Your task to perform on an android device: Go to network settings Image 0: 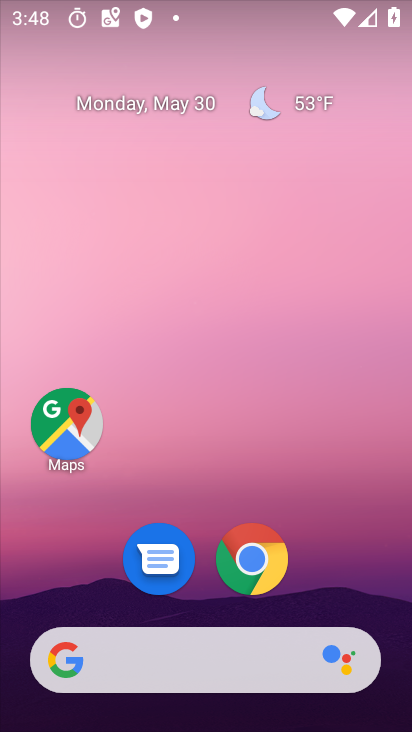
Step 0: drag from (229, 726) to (224, 2)
Your task to perform on an android device: Go to network settings Image 1: 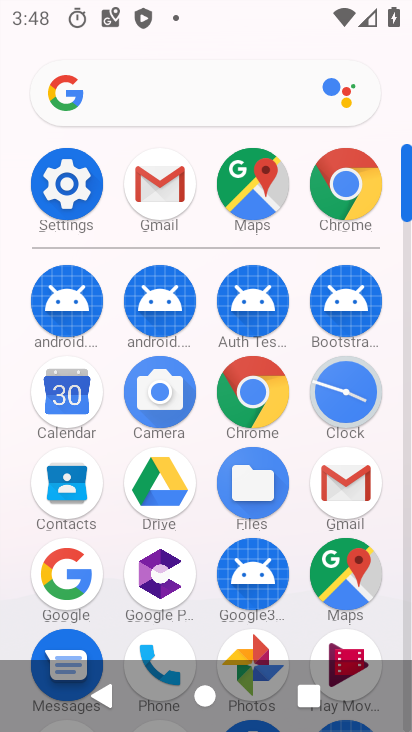
Step 1: click (70, 180)
Your task to perform on an android device: Go to network settings Image 2: 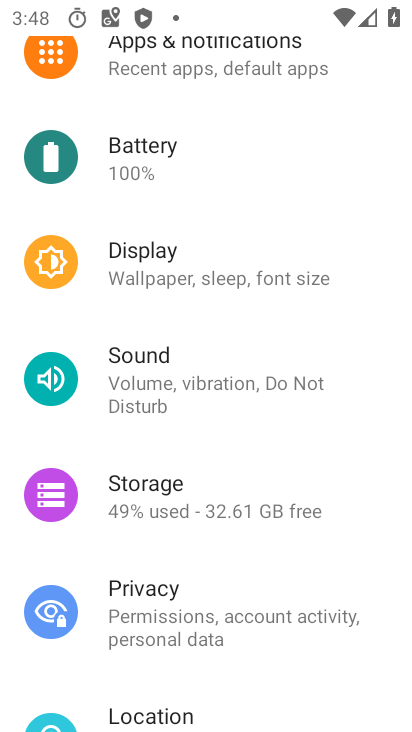
Step 2: drag from (253, 147) to (280, 533)
Your task to perform on an android device: Go to network settings Image 3: 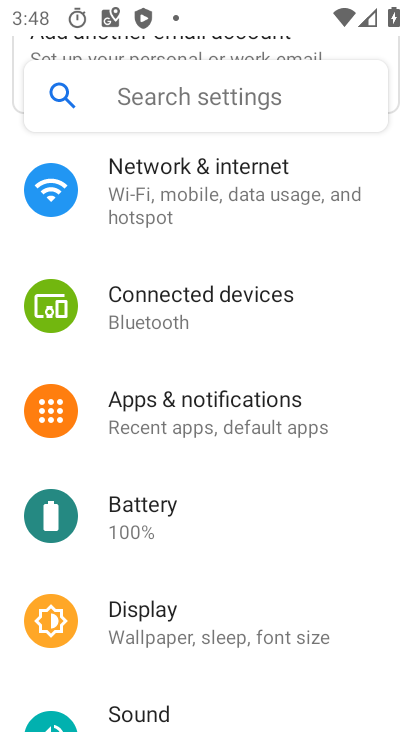
Step 3: click (168, 200)
Your task to perform on an android device: Go to network settings Image 4: 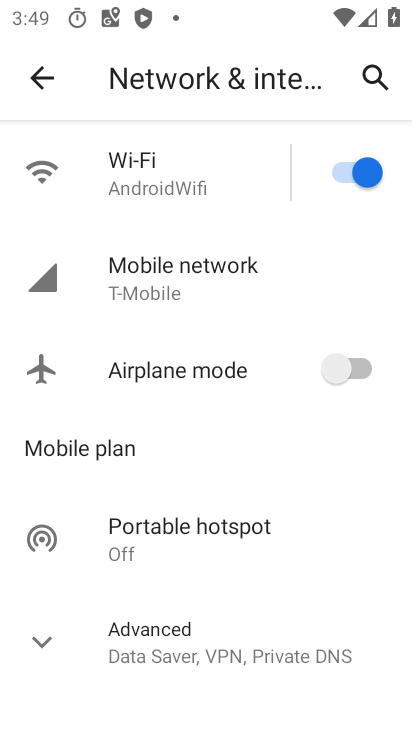
Step 4: task complete